Your task to perform on an android device: turn off airplane mode Image 0: 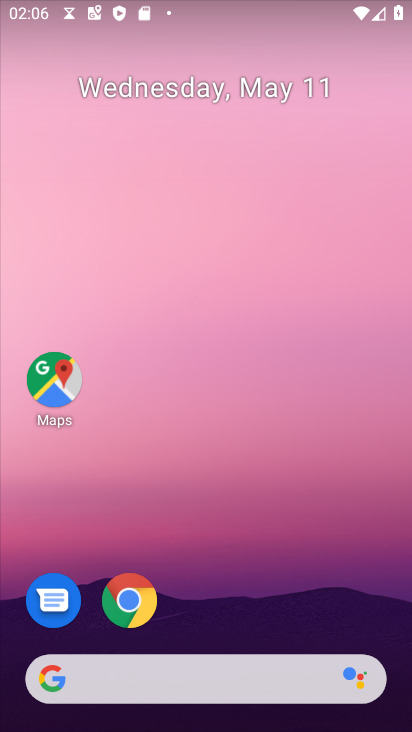
Step 0: drag from (287, 559) to (330, 231)
Your task to perform on an android device: turn off airplane mode Image 1: 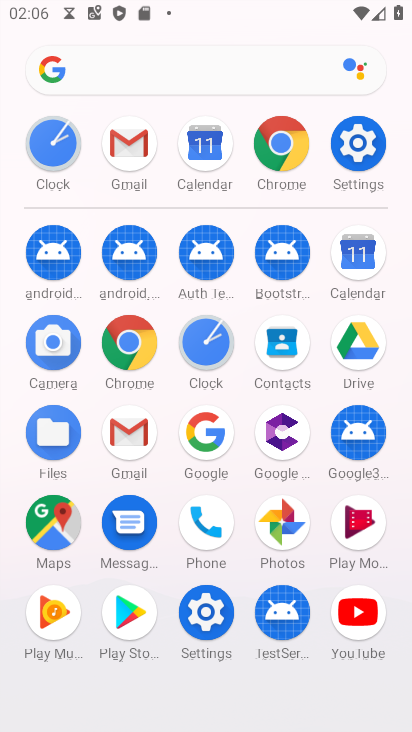
Step 1: click (362, 136)
Your task to perform on an android device: turn off airplane mode Image 2: 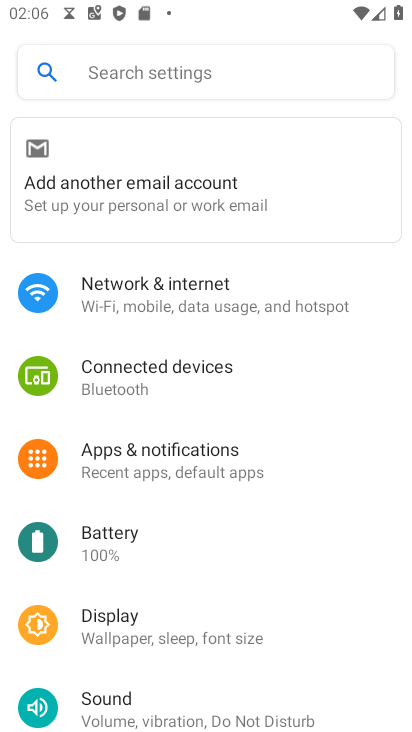
Step 2: click (175, 279)
Your task to perform on an android device: turn off airplane mode Image 3: 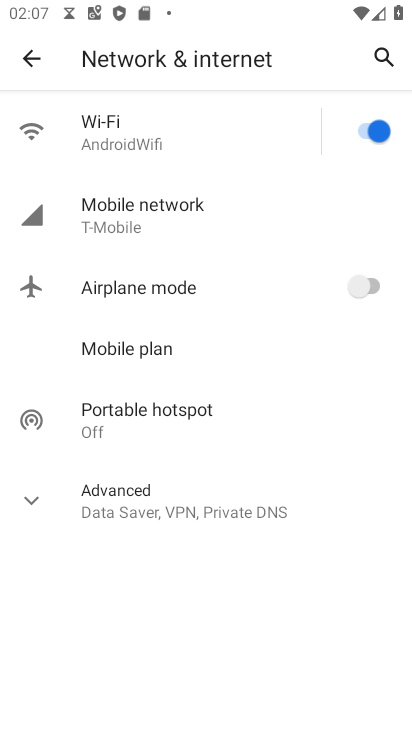
Step 3: task complete